Your task to perform on an android device: Go to privacy settings Image 0: 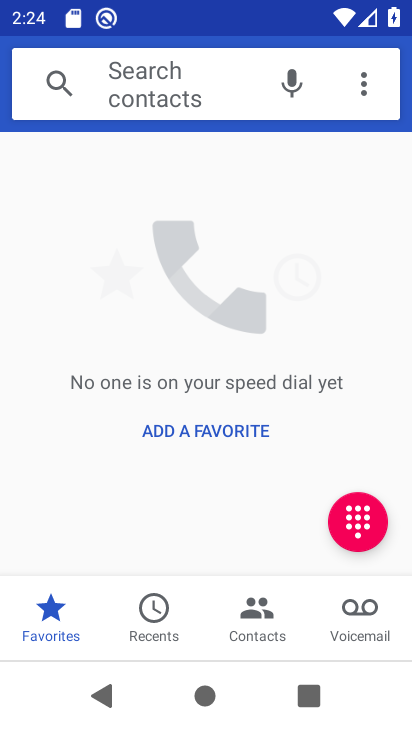
Step 0: press home button
Your task to perform on an android device: Go to privacy settings Image 1: 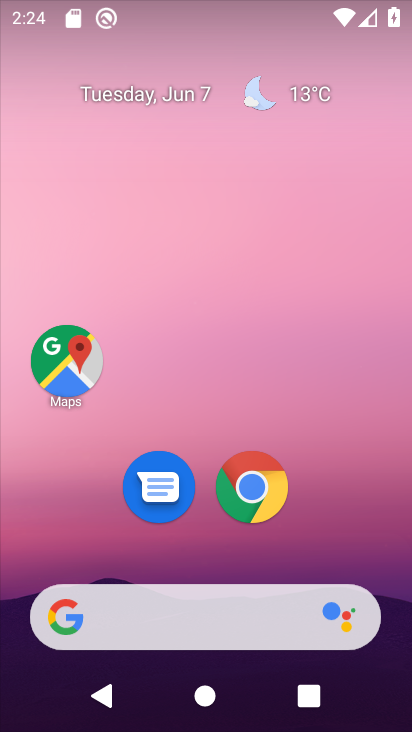
Step 1: drag from (368, 541) to (298, 128)
Your task to perform on an android device: Go to privacy settings Image 2: 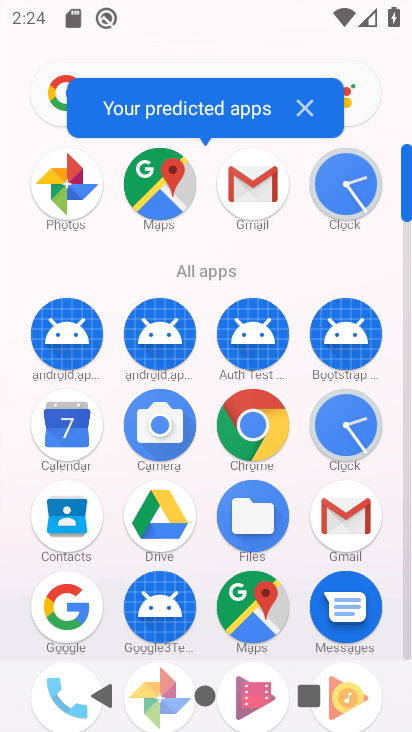
Step 2: click (404, 644)
Your task to perform on an android device: Go to privacy settings Image 3: 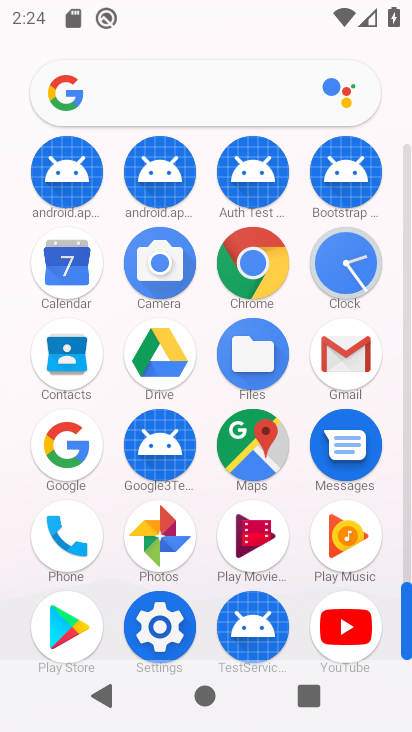
Step 3: click (175, 631)
Your task to perform on an android device: Go to privacy settings Image 4: 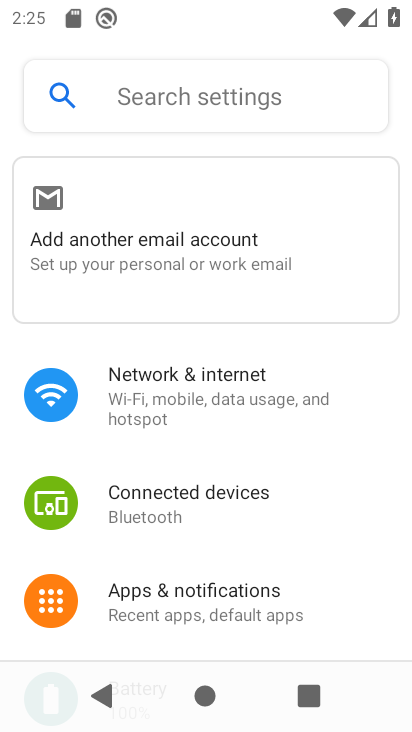
Step 4: drag from (297, 578) to (150, 5)
Your task to perform on an android device: Go to privacy settings Image 5: 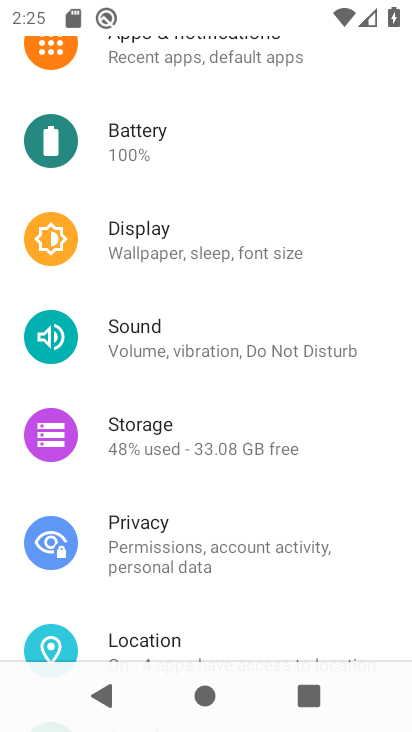
Step 5: click (276, 537)
Your task to perform on an android device: Go to privacy settings Image 6: 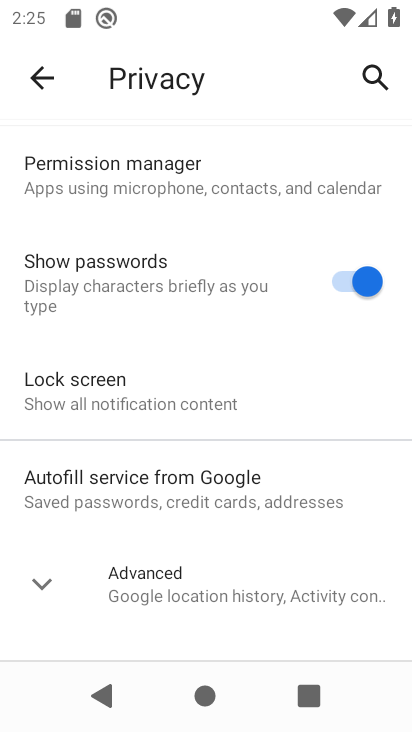
Step 6: task complete